Your task to perform on an android device: Open my contact list Image 0: 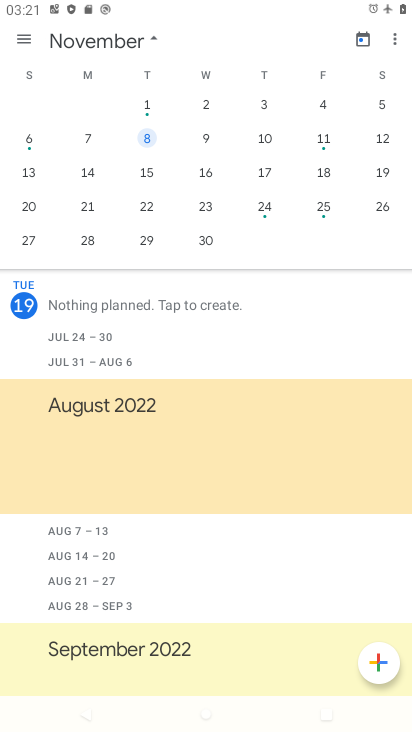
Step 0: press home button
Your task to perform on an android device: Open my contact list Image 1: 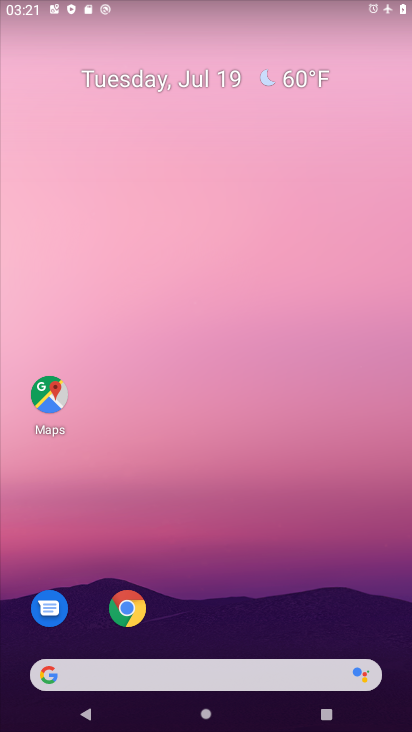
Step 1: drag from (291, 464) to (222, 49)
Your task to perform on an android device: Open my contact list Image 2: 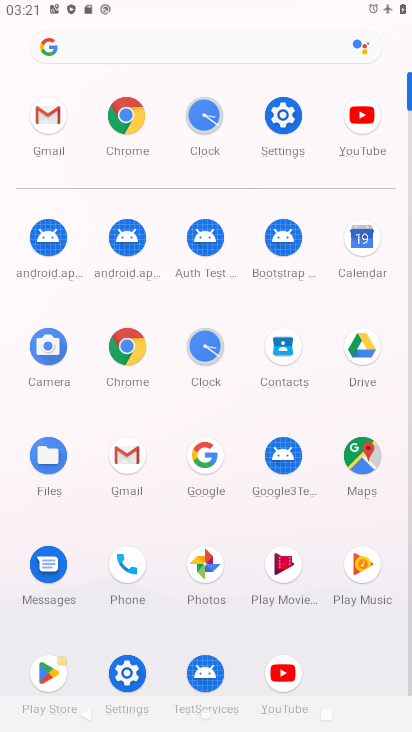
Step 2: click (117, 569)
Your task to perform on an android device: Open my contact list Image 3: 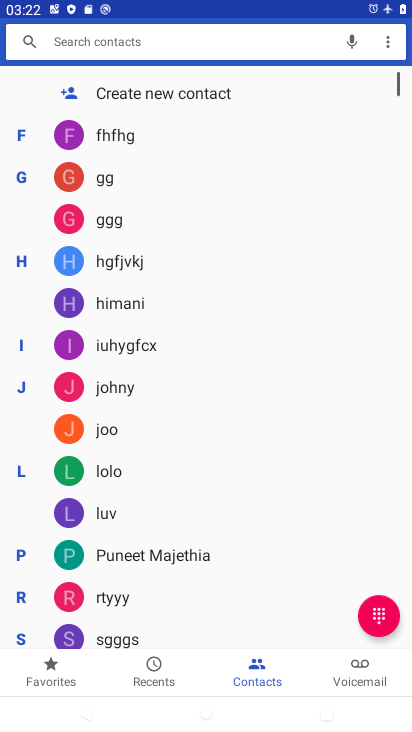
Step 3: task complete